Your task to perform on an android device: turn off data saver in the chrome app Image 0: 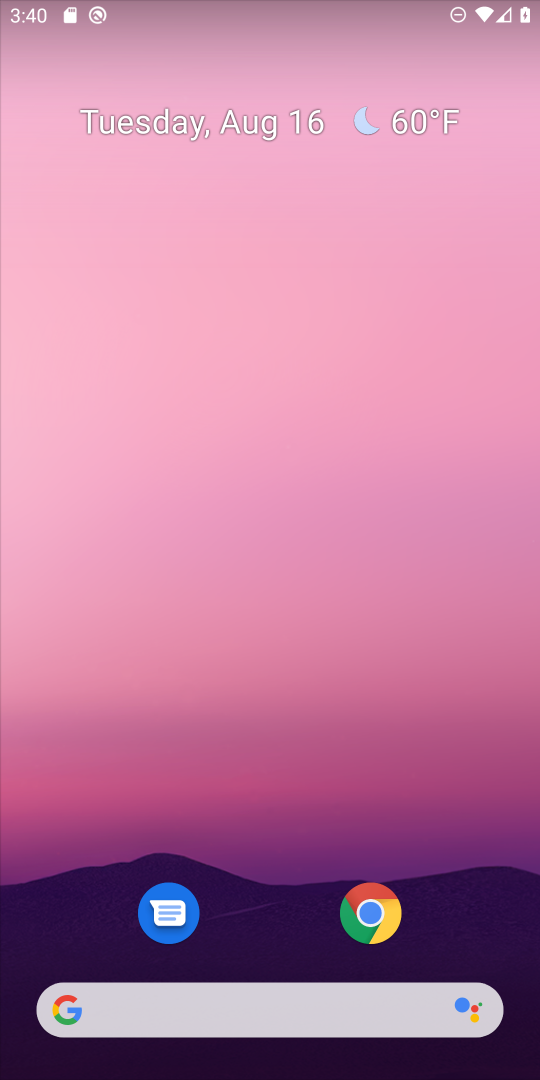
Step 0: click (376, 915)
Your task to perform on an android device: turn off data saver in the chrome app Image 1: 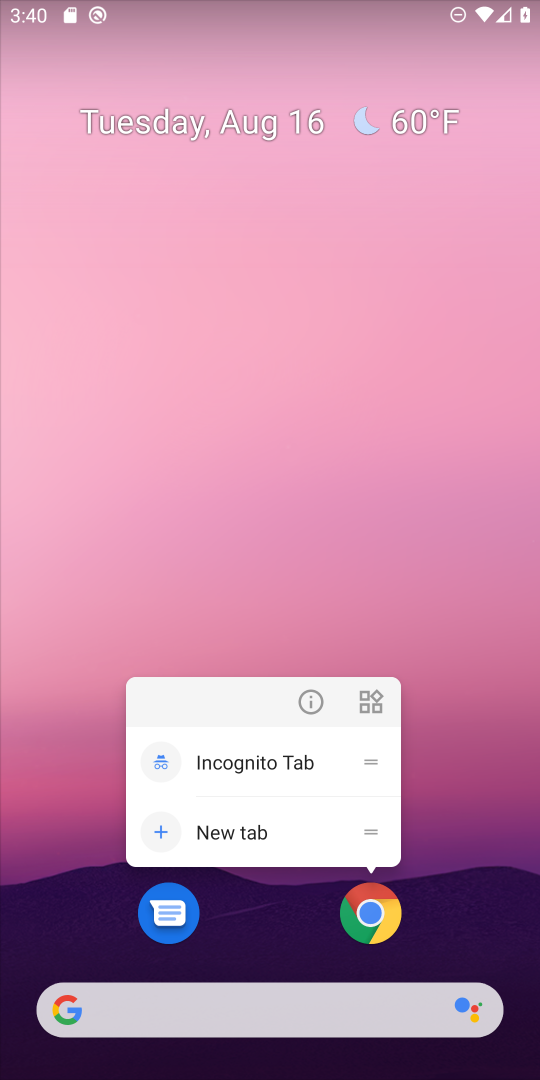
Step 1: click (376, 915)
Your task to perform on an android device: turn off data saver in the chrome app Image 2: 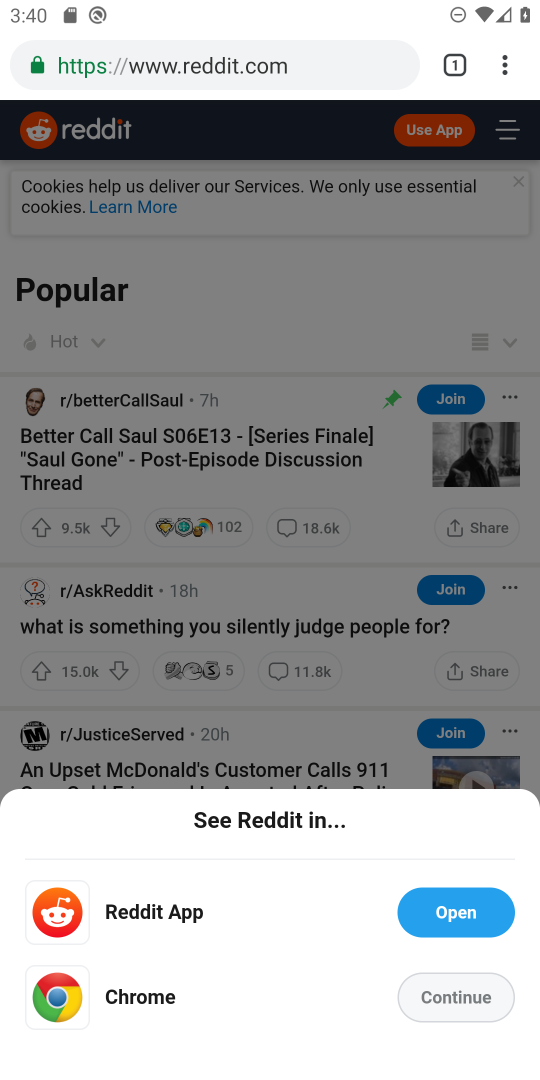
Step 2: click (498, 69)
Your task to perform on an android device: turn off data saver in the chrome app Image 3: 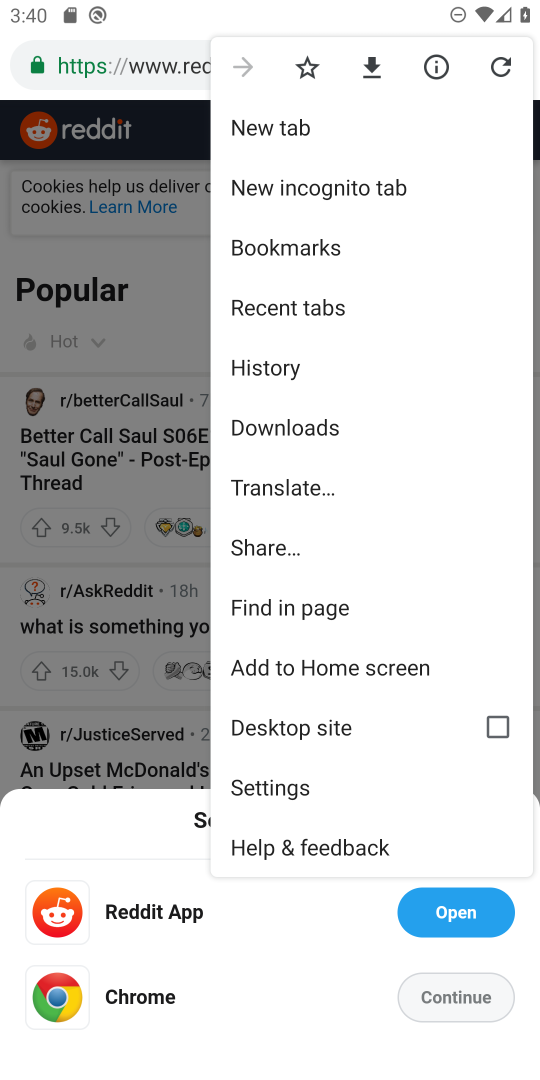
Step 3: click (275, 785)
Your task to perform on an android device: turn off data saver in the chrome app Image 4: 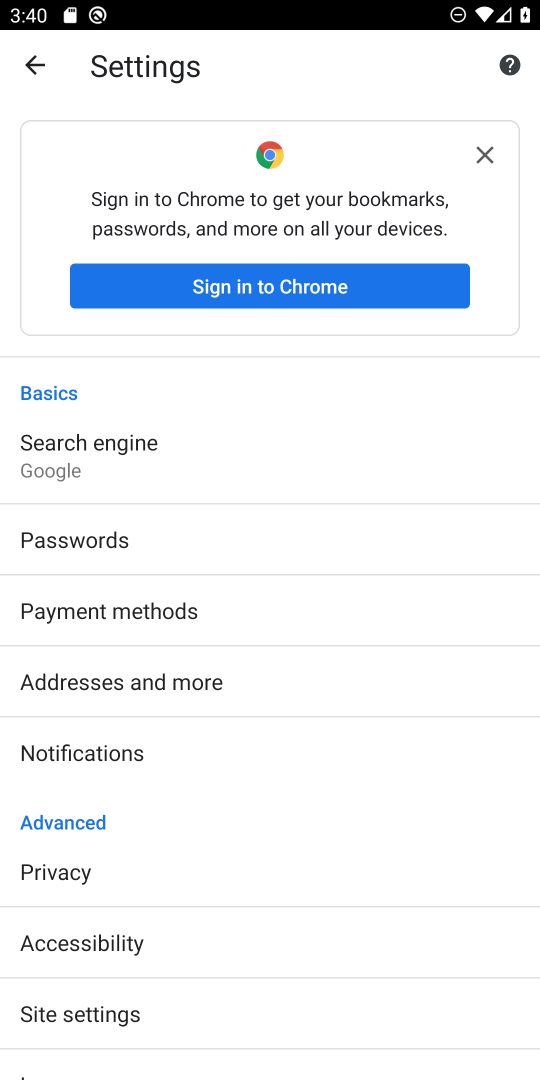
Step 4: drag from (272, 937) to (299, 495)
Your task to perform on an android device: turn off data saver in the chrome app Image 5: 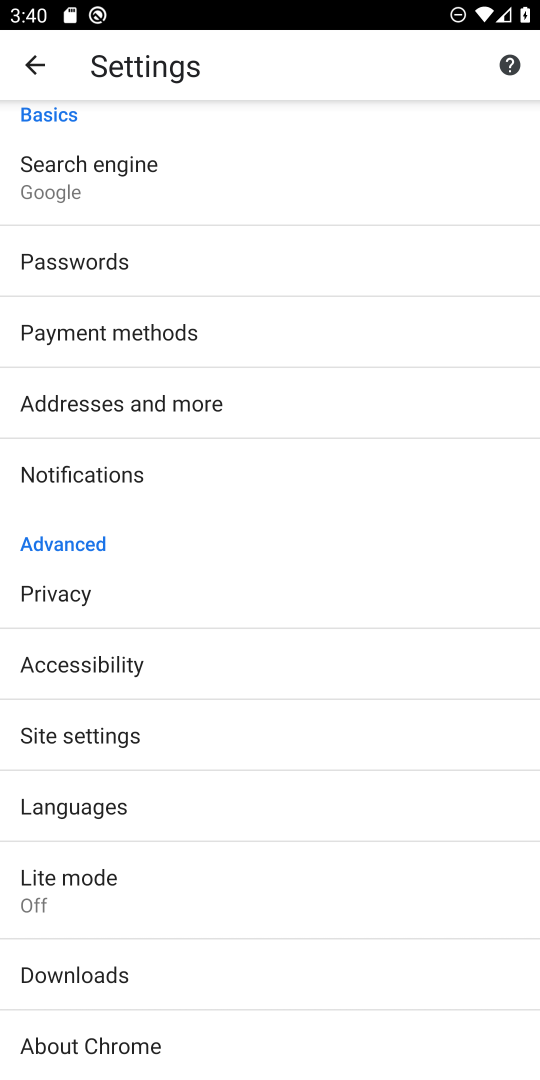
Step 5: click (74, 874)
Your task to perform on an android device: turn off data saver in the chrome app Image 6: 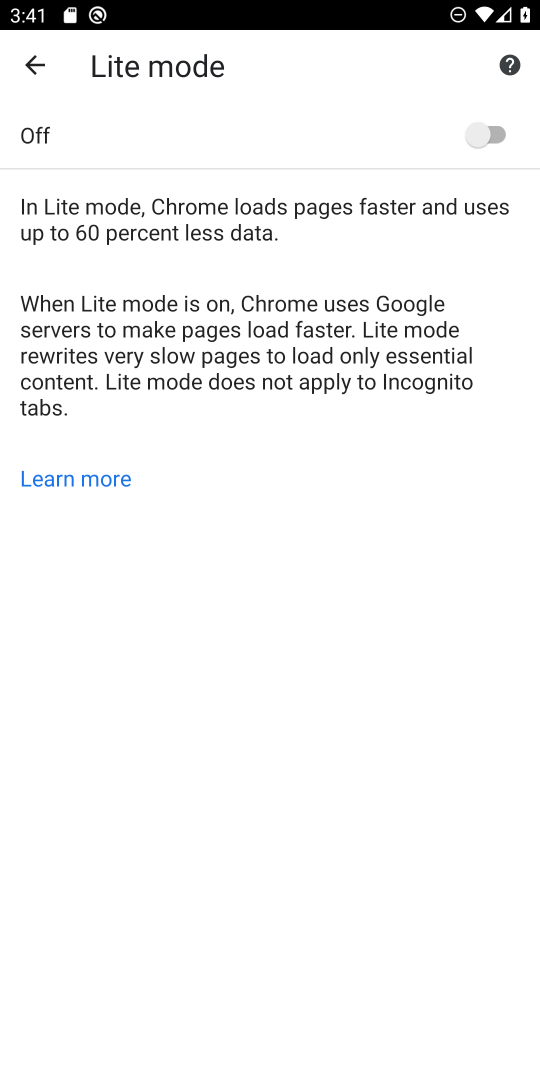
Step 6: task complete